Your task to perform on an android device: Open Google Chrome and click the shortcut for Amazon.com Image 0: 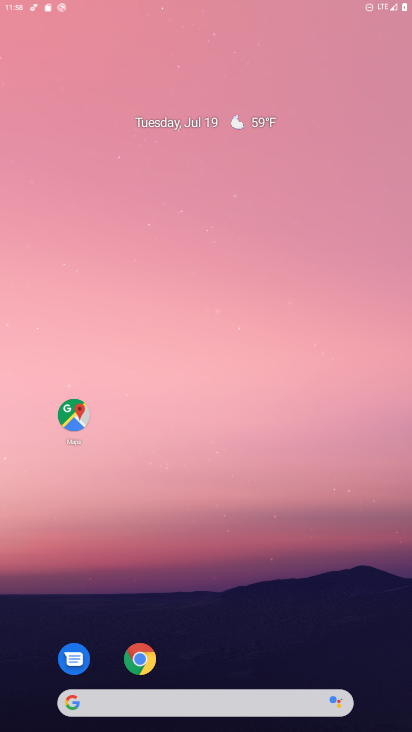
Step 0: press home button
Your task to perform on an android device: Open Google Chrome and click the shortcut for Amazon.com Image 1: 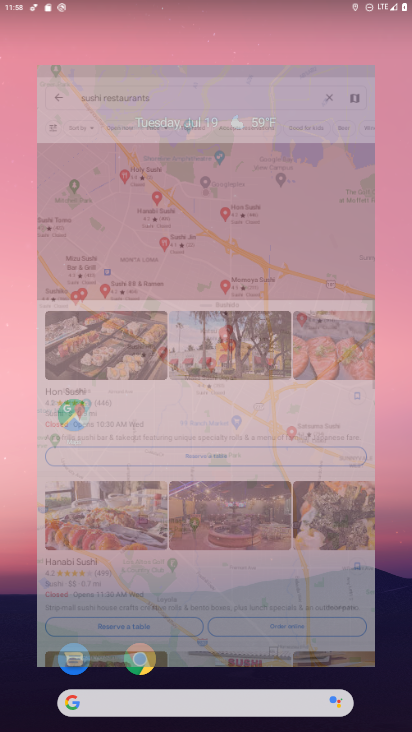
Step 1: click (227, 58)
Your task to perform on an android device: Open Google Chrome and click the shortcut for Amazon.com Image 2: 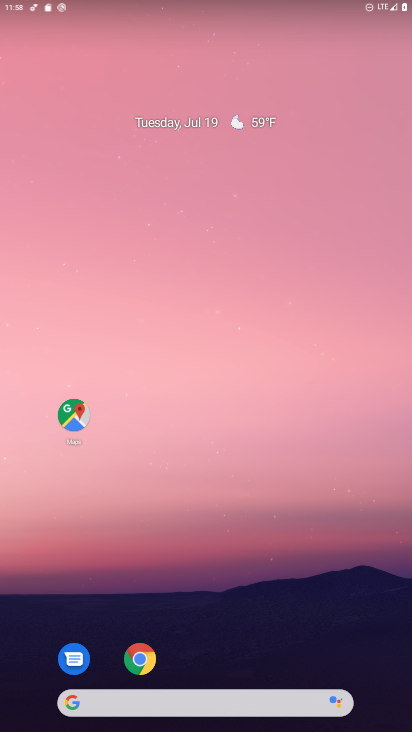
Step 2: drag from (309, 639) to (235, 53)
Your task to perform on an android device: Open Google Chrome and click the shortcut for Amazon.com Image 3: 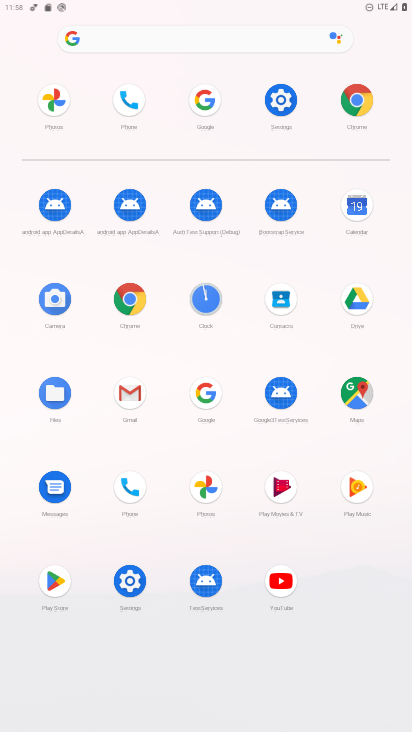
Step 3: click (355, 88)
Your task to perform on an android device: Open Google Chrome and click the shortcut for Amazon.com Image 4: 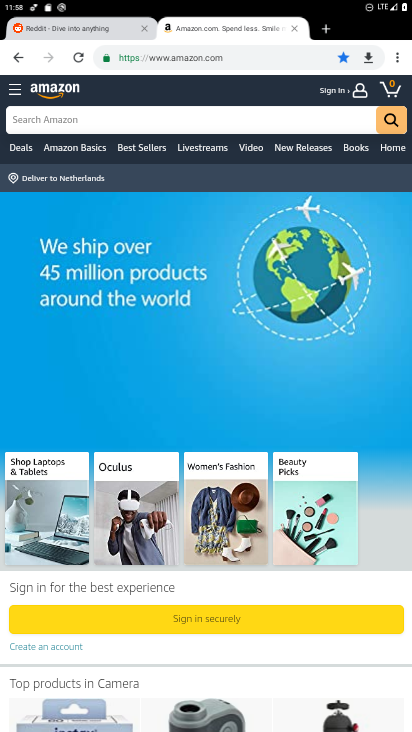
Step 4: click (327, 30)
Your task to perform on an android device: Open Google Chrome and click the shortcut for Amazon.com Image 5: 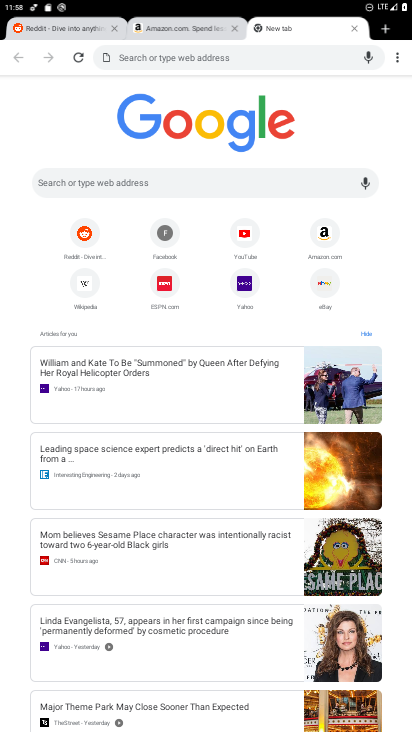
Step 5: click (333, 236)
Your task to perform on an android device: Open Google Chrome and click the shortcut for Amazon.com Image 6: 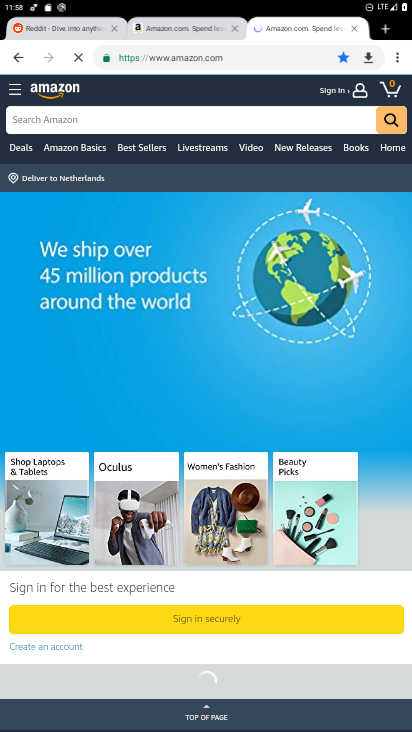
Step 6: task complete